Your task to perform on an android device: open app "YouTube Kids" (install if not already installed) and go to login screen Image 0: 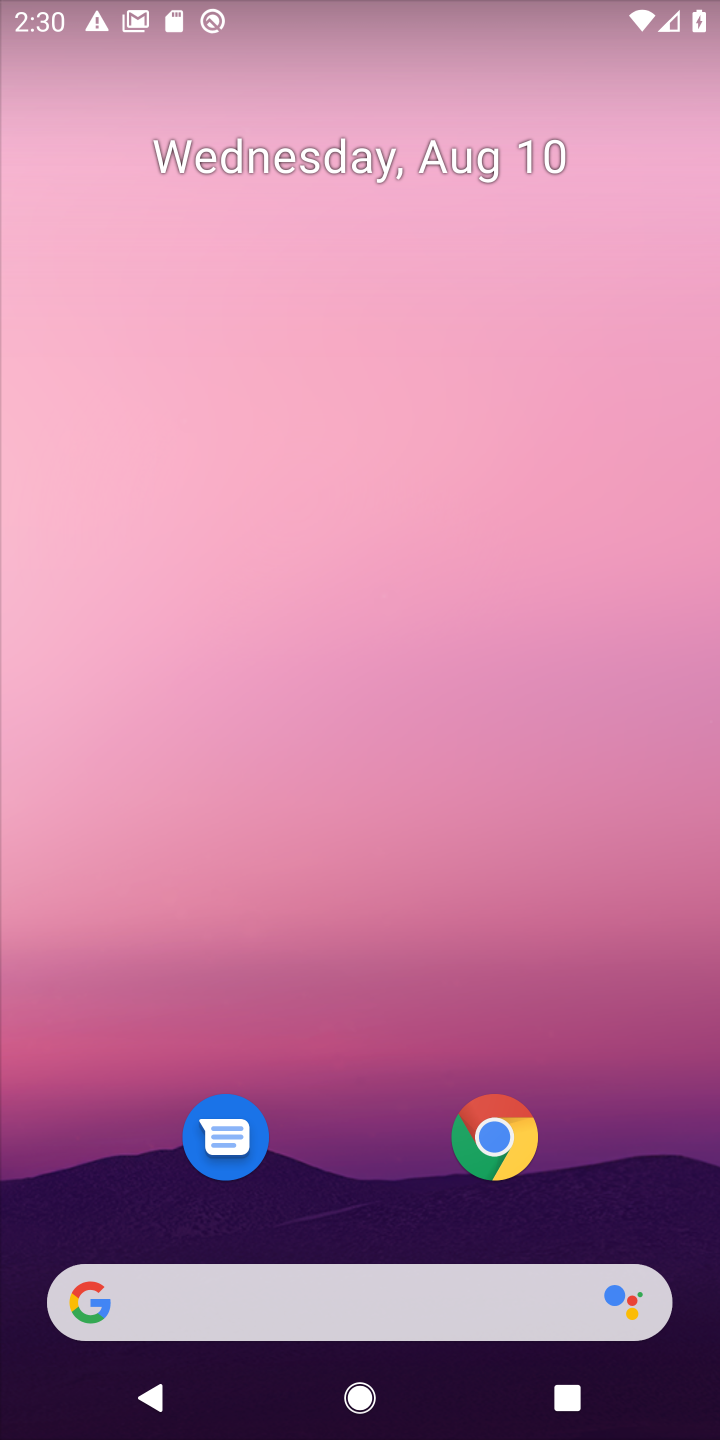
Step 0: drag from (387, 1157) to (473, 191)
Your task to perform on an android device: open app "YouTube Kids" (install if not already installed) and go to login screen Image 1: 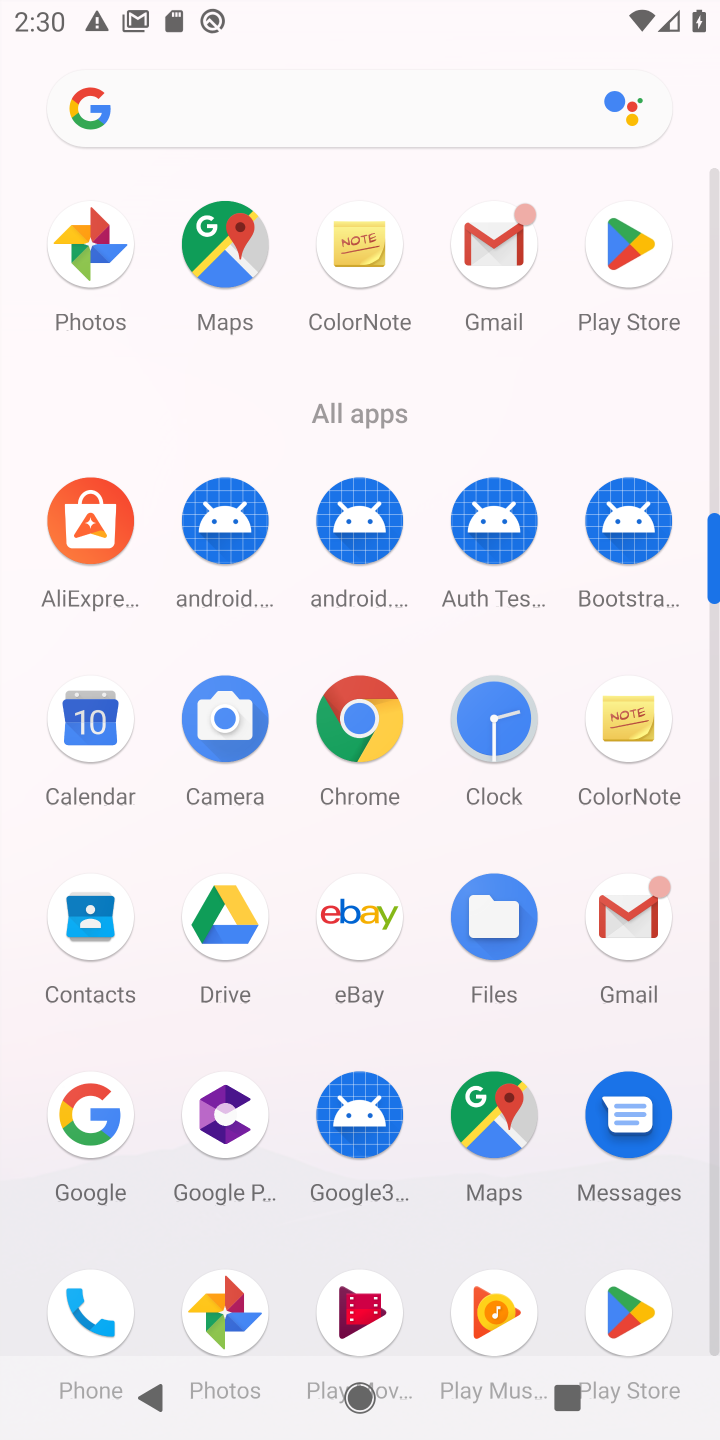
Step 1: click (633, 267)
Your task to perform on an android device: open app "YouTube Kids" (install if not already installed) and go to login screen Image 2: 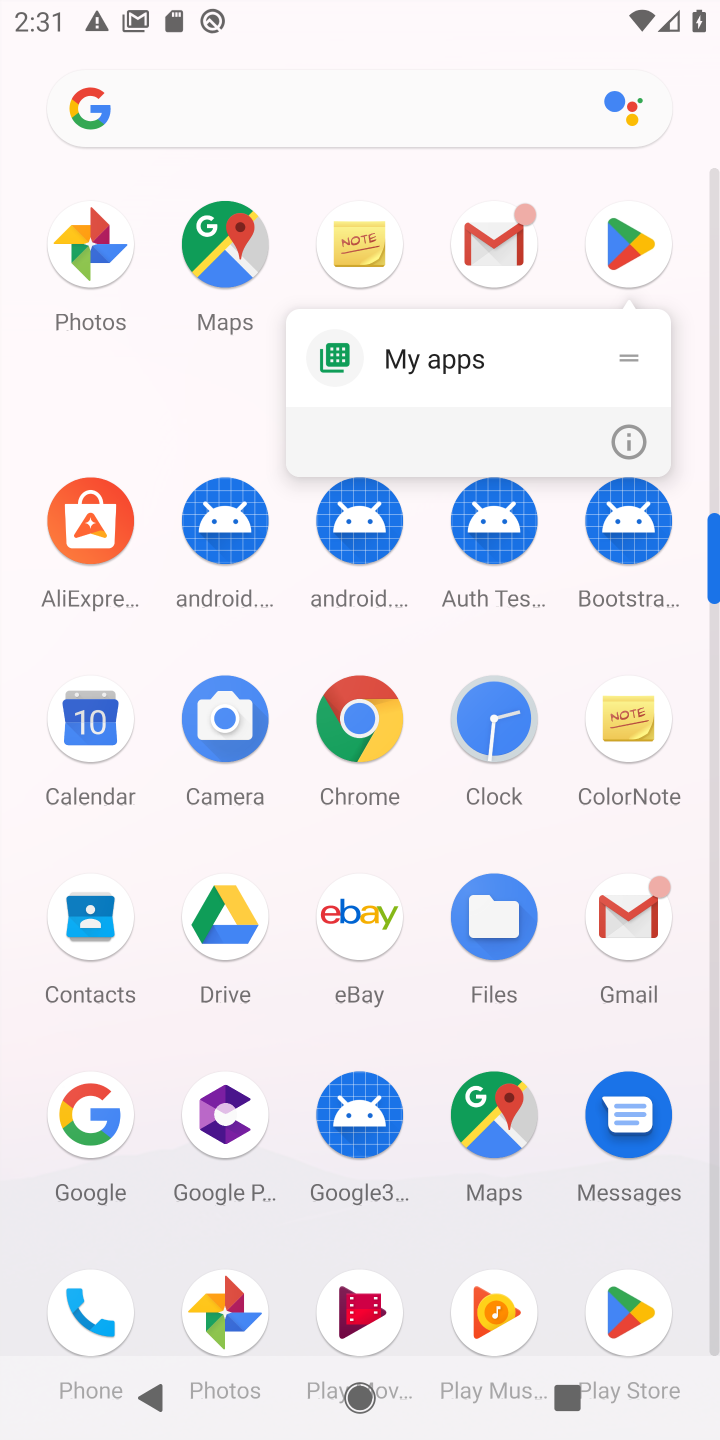
Step 2: click (639, 245)
Your task to perform on an android device: open app "YouTube Kids" (install if not already installed) and go to login screen Image 3: 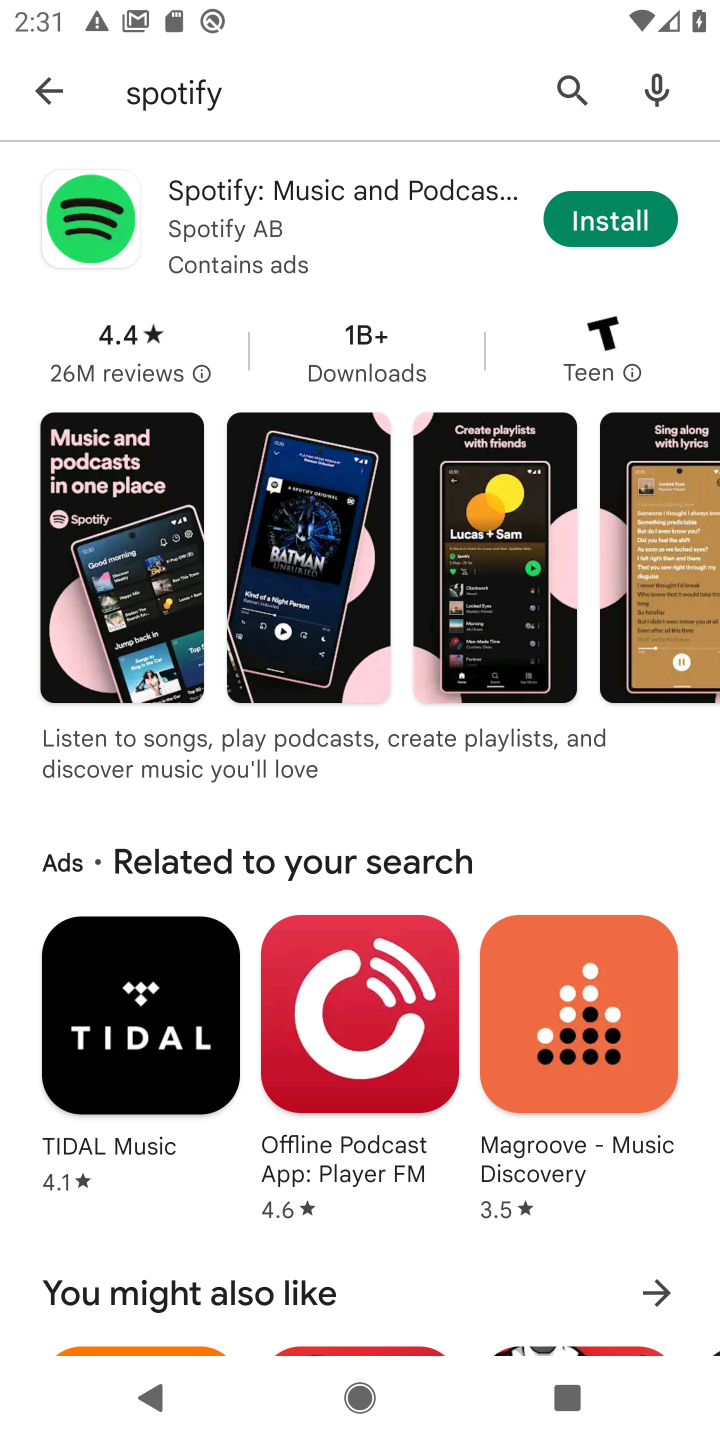
Step 3: click (310, 96)
Your task to perform on an android device: open app "YouTube Kids" (install if not already installed) and go to login screen Image 4: 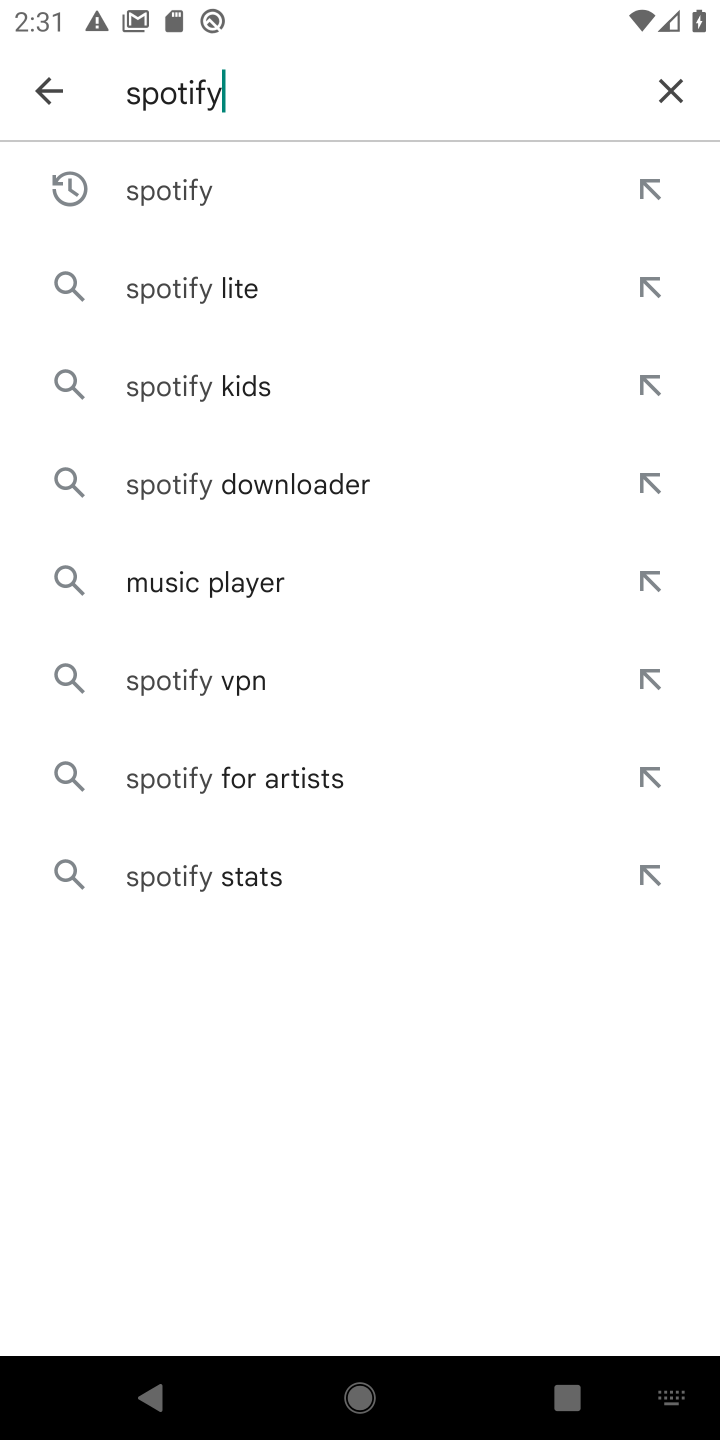
Step 4: click (671, 90)
Your task to perform on an android device: open app "YouTube Kids" (install if not already installed) and go to login screen Image 5: 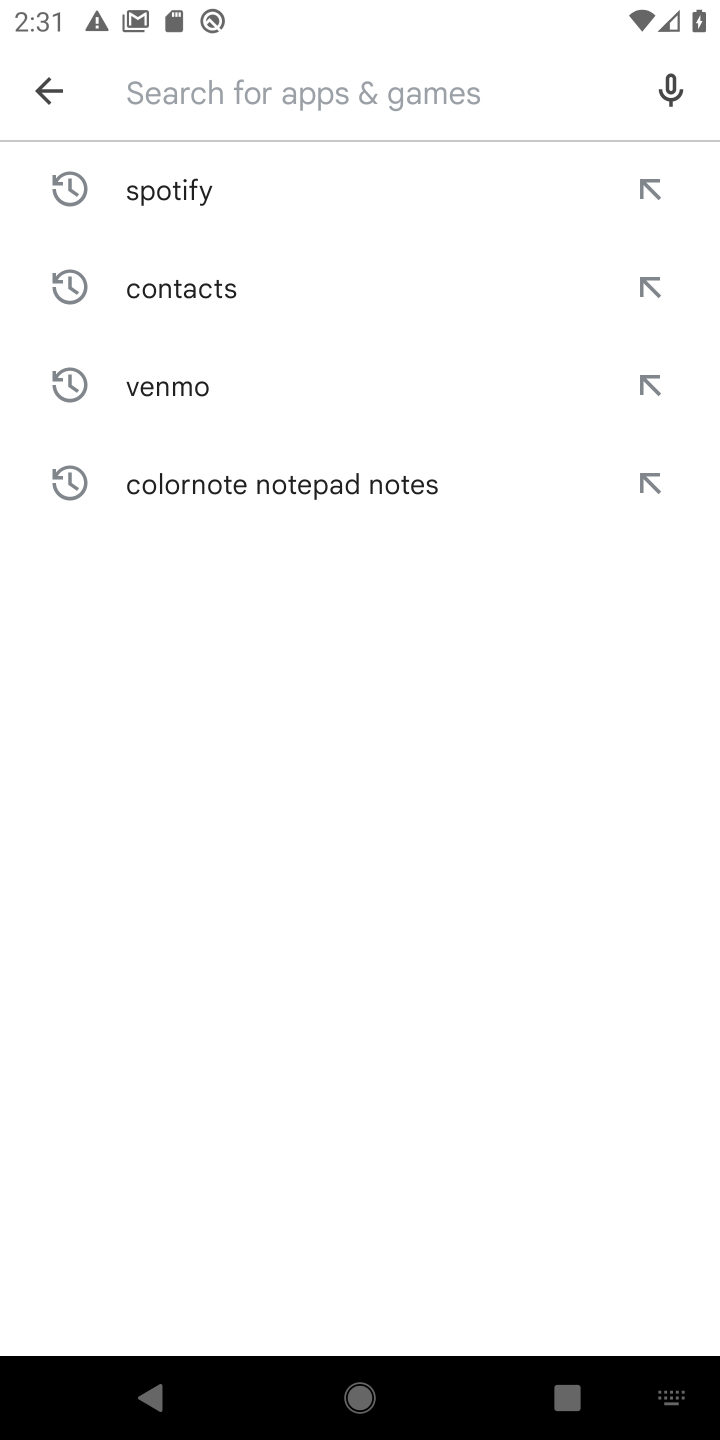
Step 5: type "youtube kids"
Your task to perform on an android device: open app "YouTube Kids" (install if not already installed) and go to login screen Image 6: 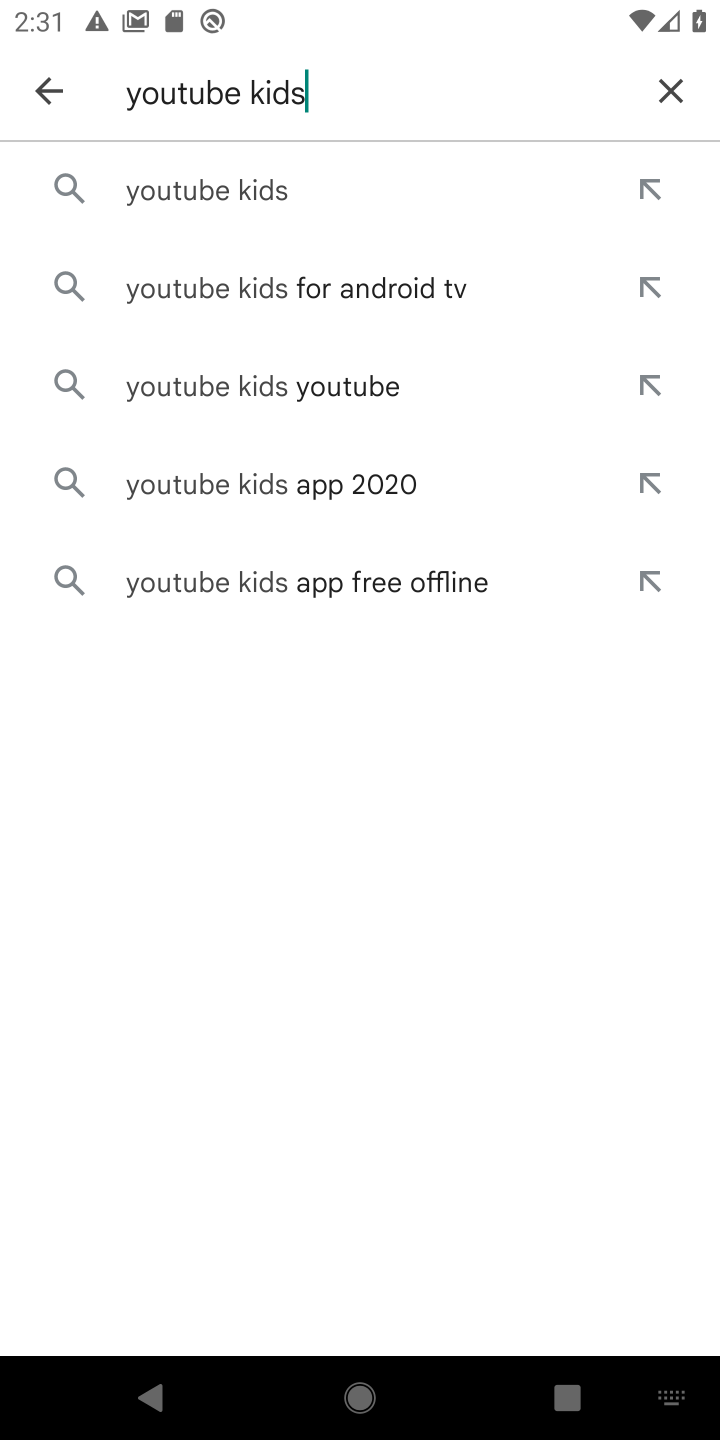
Step 6: click (358, 199)
Your task to perform on an android device: open app "YouTube Kids" (install if not already installed) and go to login screen Image 7: 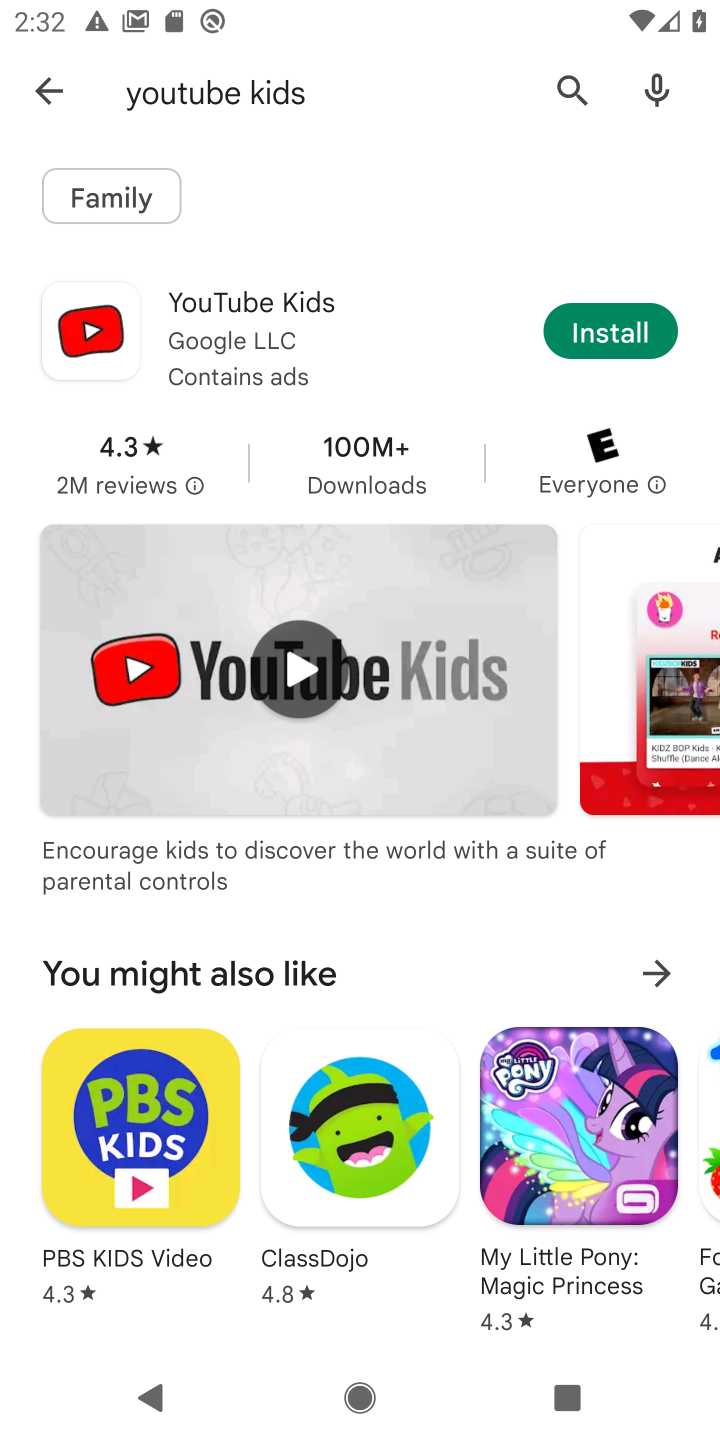
Step 7: click (578, 323)
Your task to perform on an android device: open app "YouTube Kids" (install if not already installed) and go to login screen Image 8: 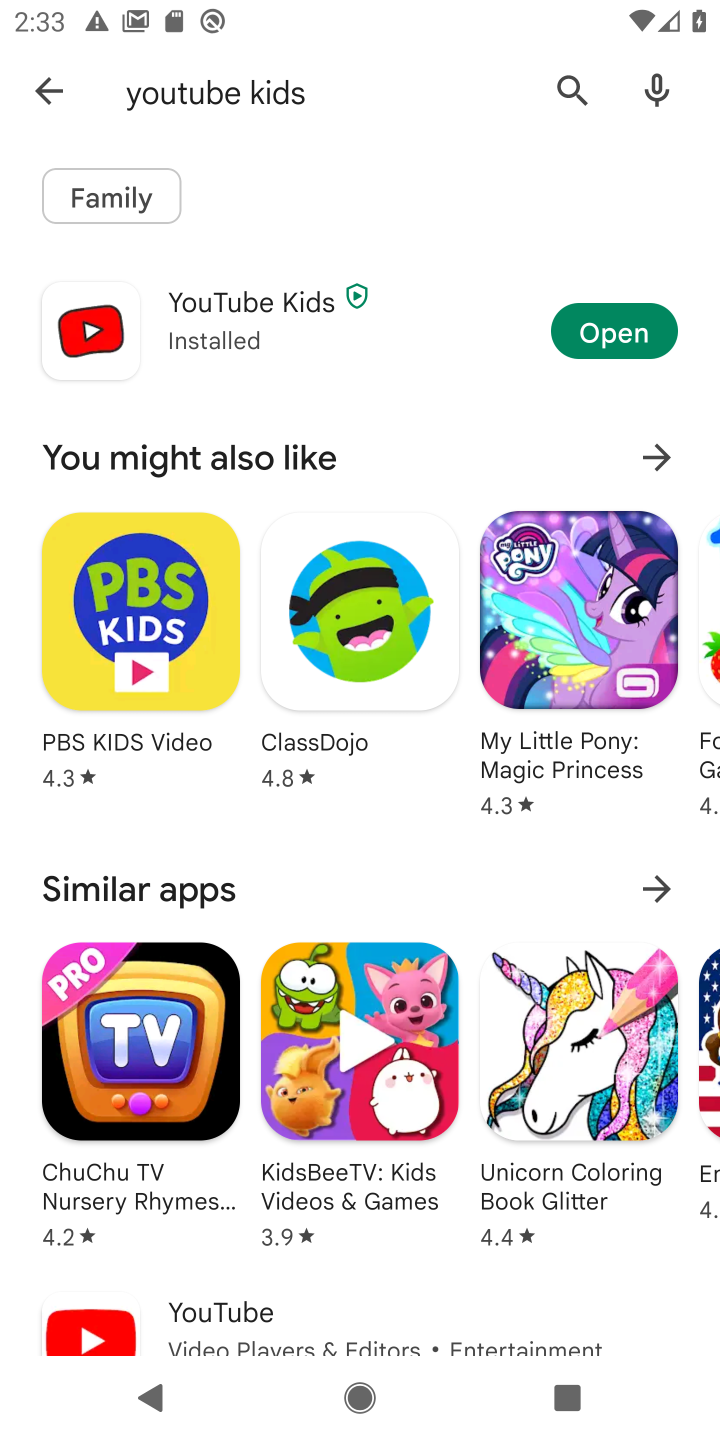
Step 8: click (618, 303)
Your task to perform on an android device: open app "YouTube Kids" (install if not already installed) and go to login screen Image 9: 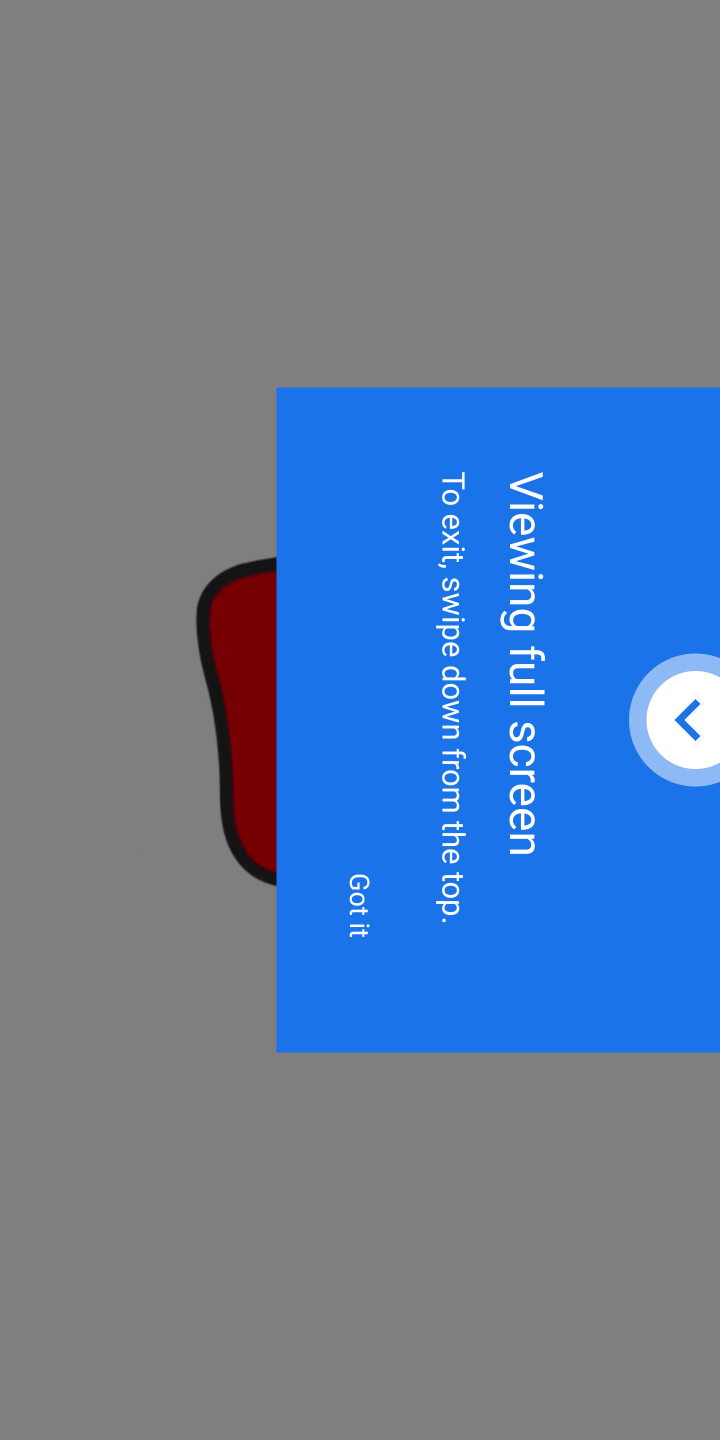
Step 9: click (361, 923)
Your task to perform on an android device: open app "YouTube Kids" (install if not already installed) and go to login screen Image 10: 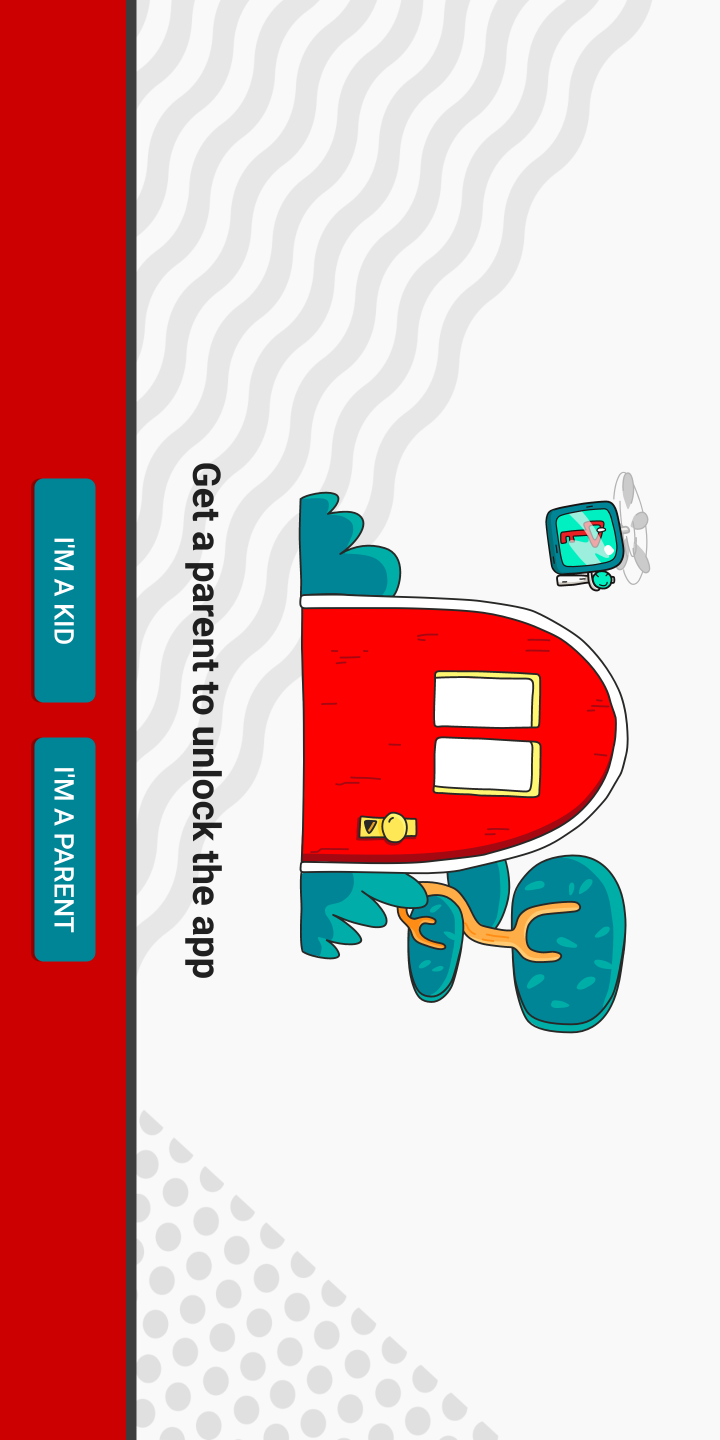
Step 10: click (48, 789)
Your task to perform on an android device: open app "YouTube Kids" (install if not already installed) and go to login screen Image 11: 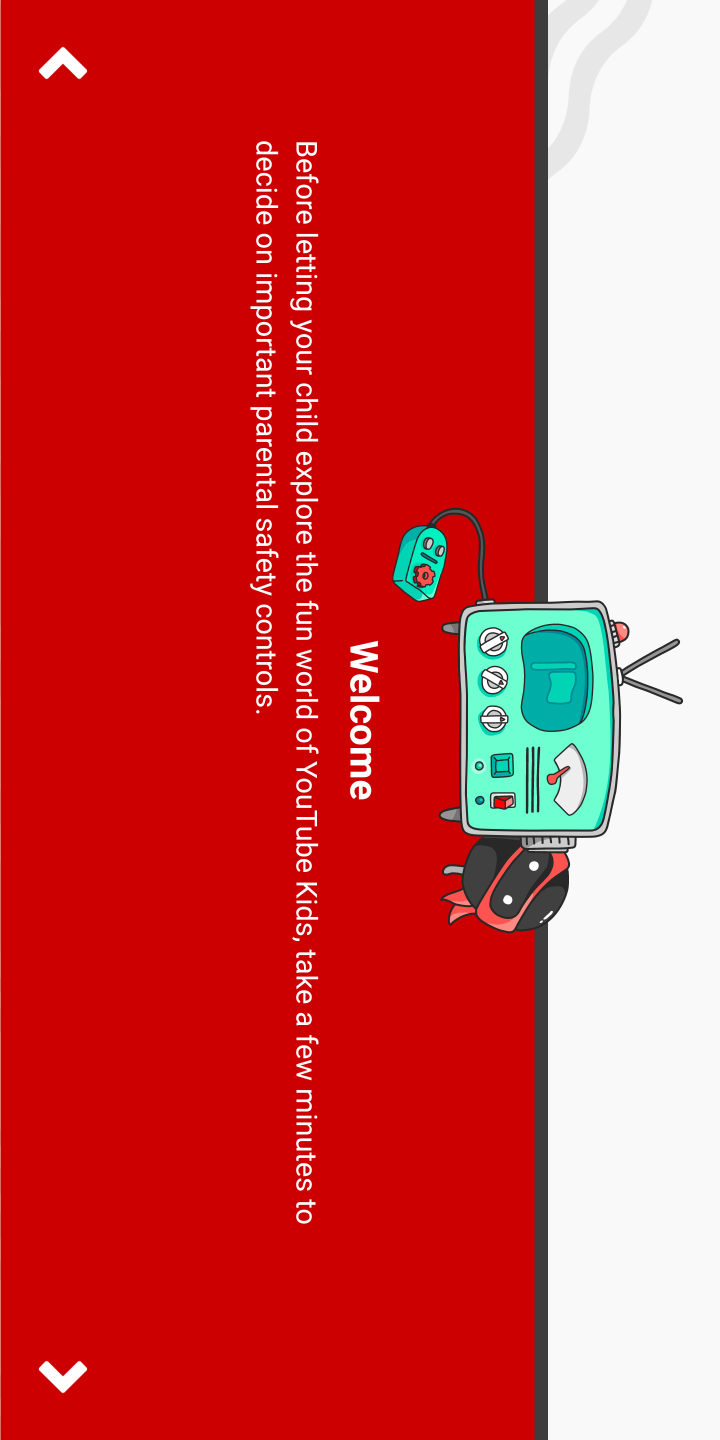
Step 11: click (69, 1372)
Your task to perform on an android device: open app "YouTube Kids" (install if not already installed) and go to login screen Image 12: 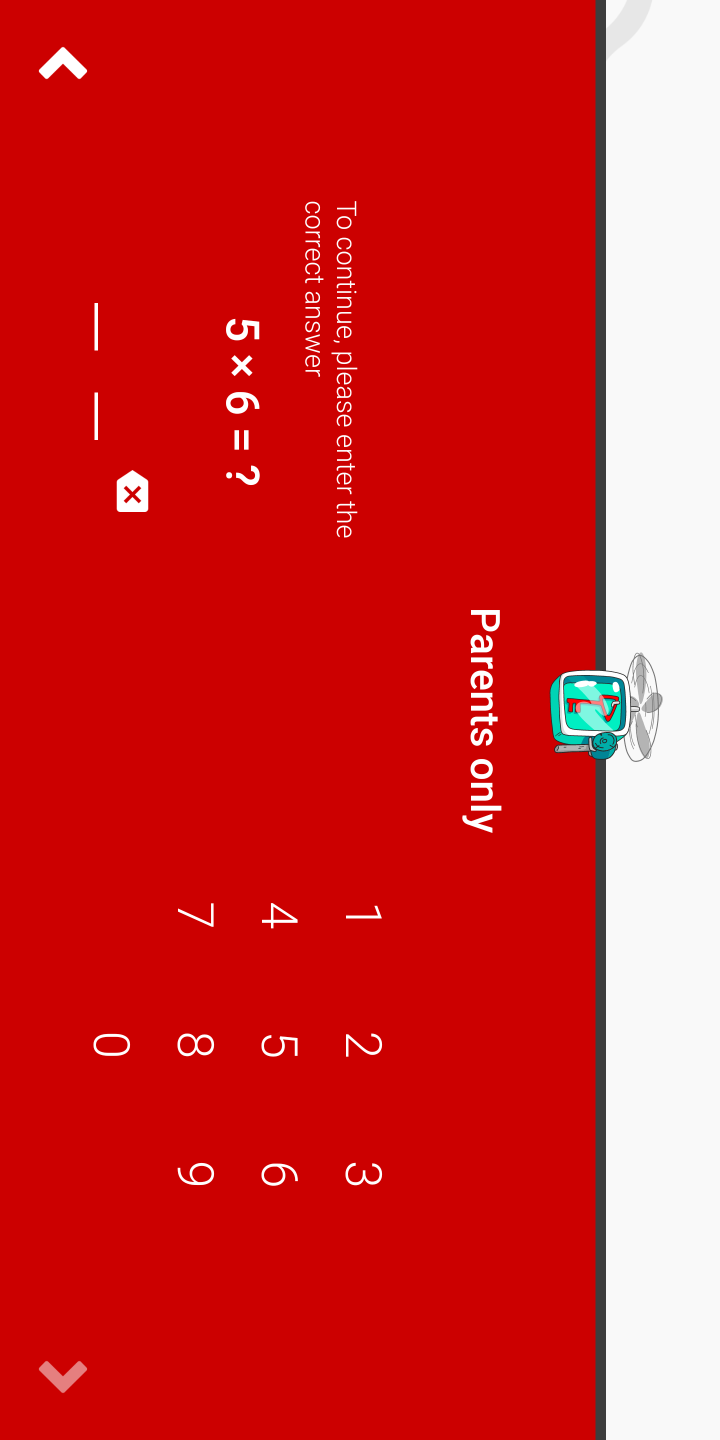
Step 12: click (370, 1167)
Your task to perform on an android device: open app "YouTube Kids" (install if not already installed) and go to login screen Image 13: 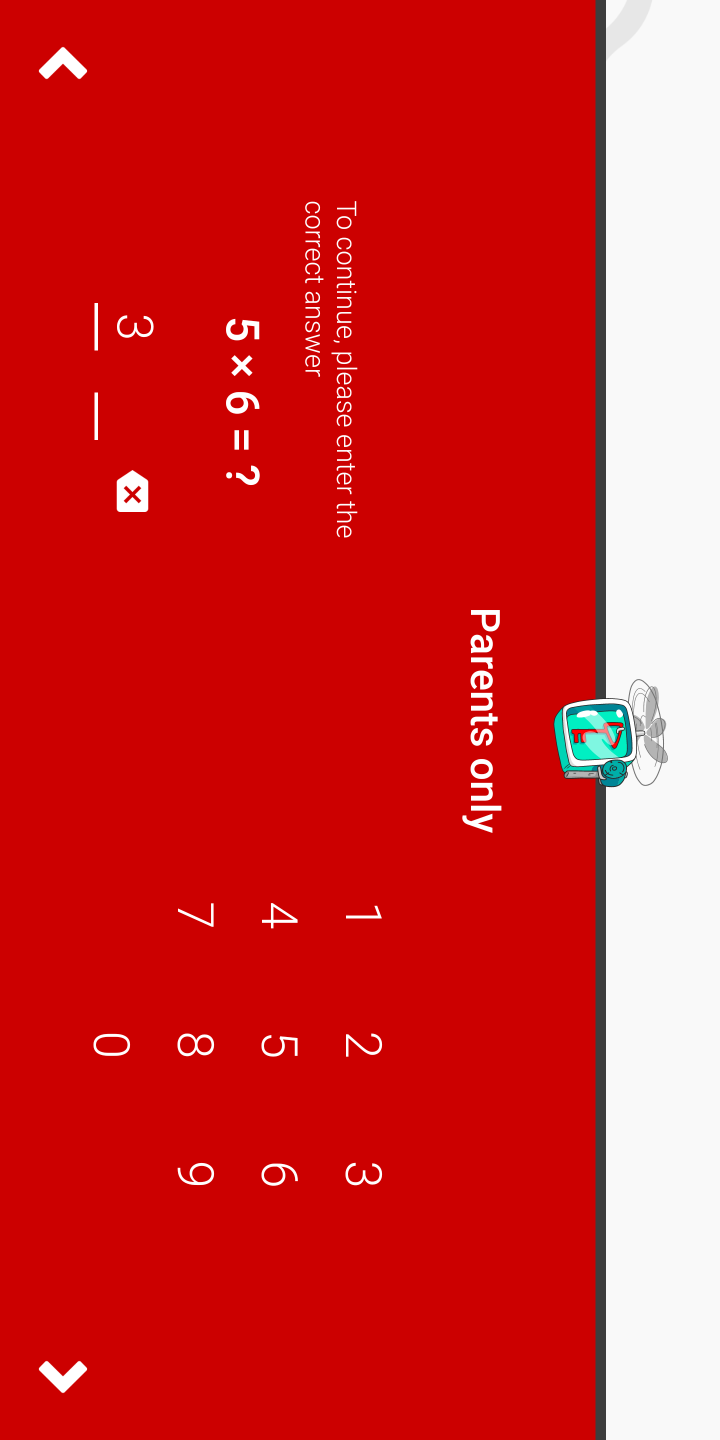
Step 13: click (93, 1048)
Your task to perform on an android device: open app "YouTube Kids" (install if not already installed) and go to login screen Image 14: 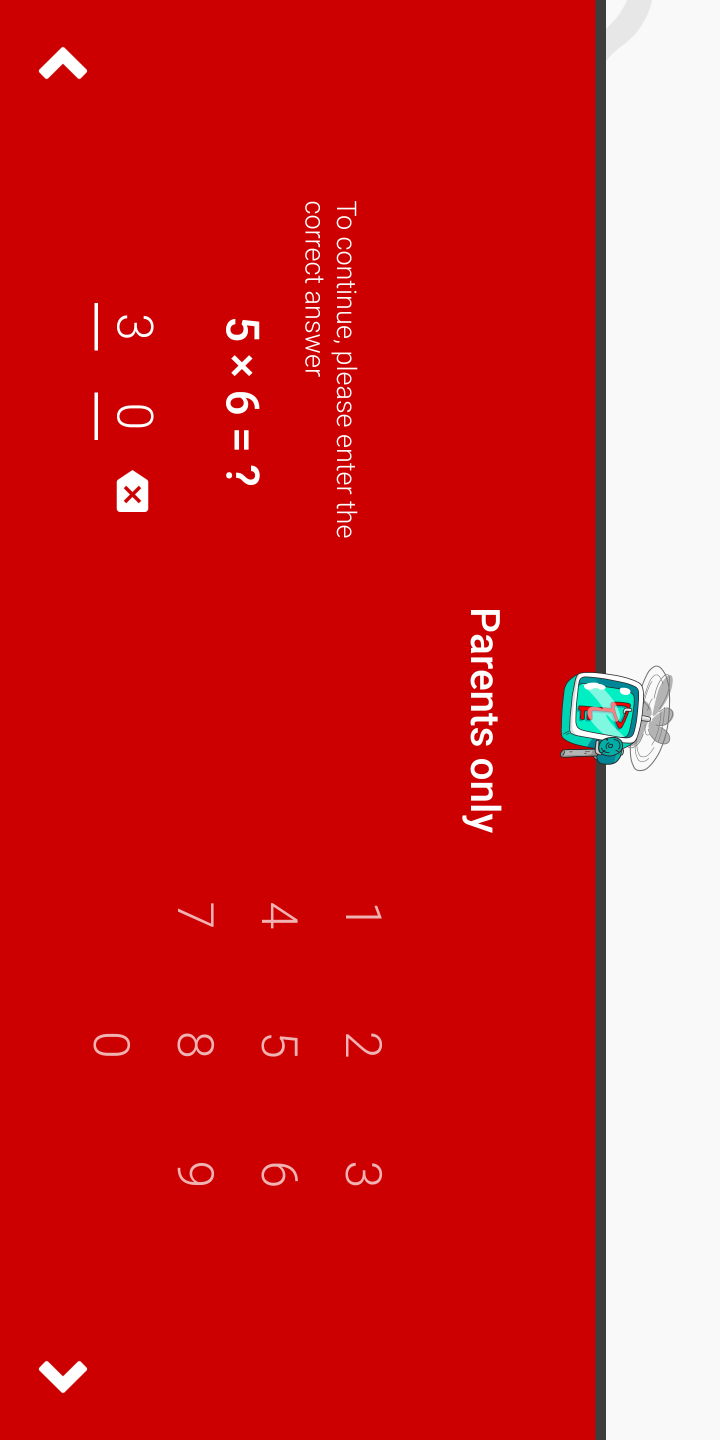
Step 14: click (58, 1388)
Your task to perform on an android device: open app "YouTube Kids" (install if not already installed) and go to login screen Image 15: 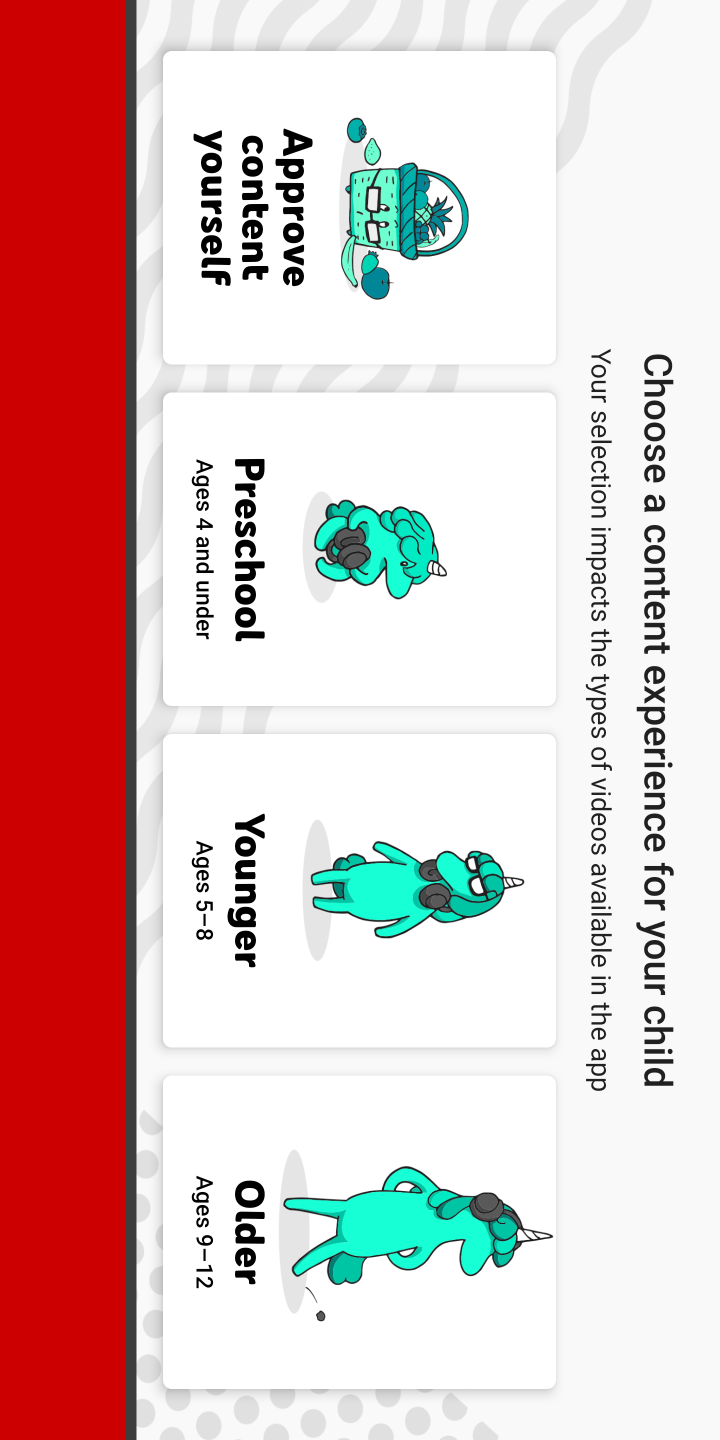
Step 15: click (297, 232)
Your task to perform on an android device: open app "YouTube Kids" (install if not already installed) and go to login screen Image 16: 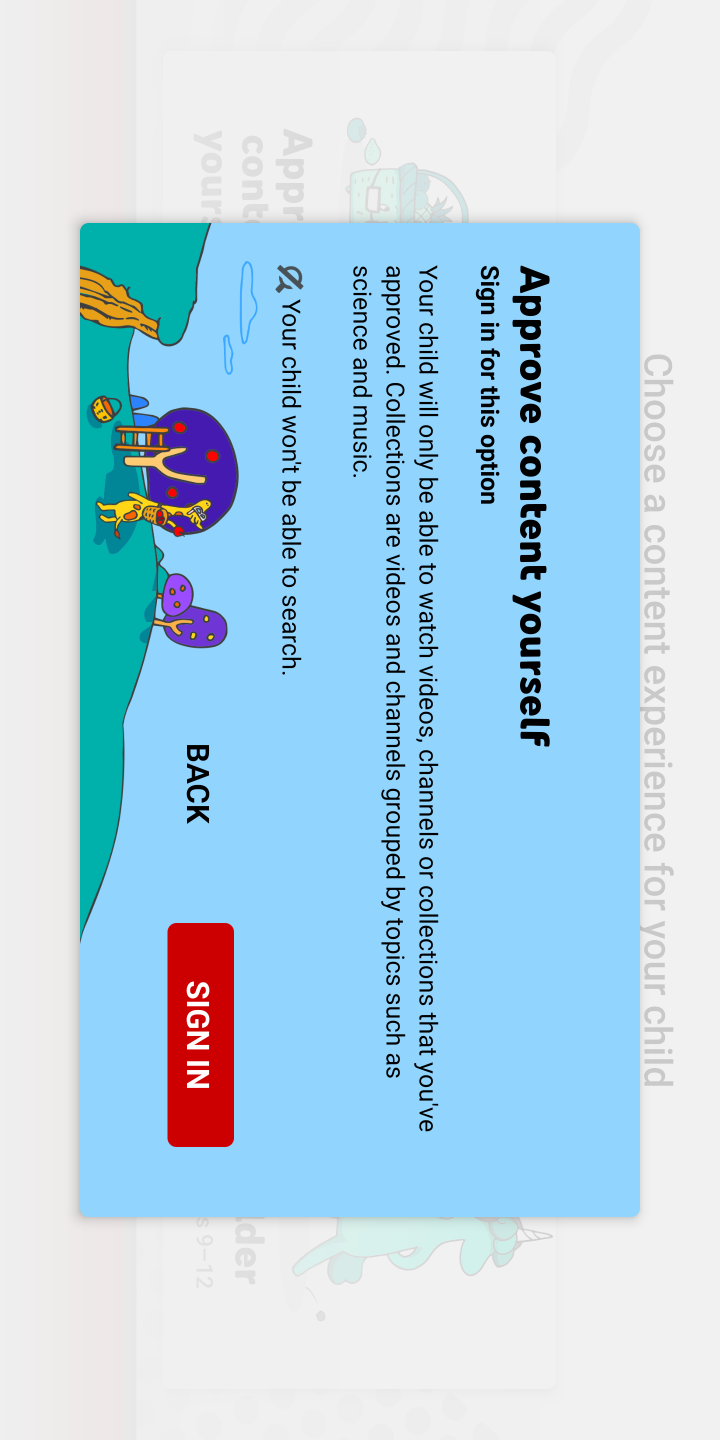
Step 16: click (197, 1034)
Your task to perform on an android device: open app "YouTube Kids" (install if not already installed) and go to login screen Image 17: 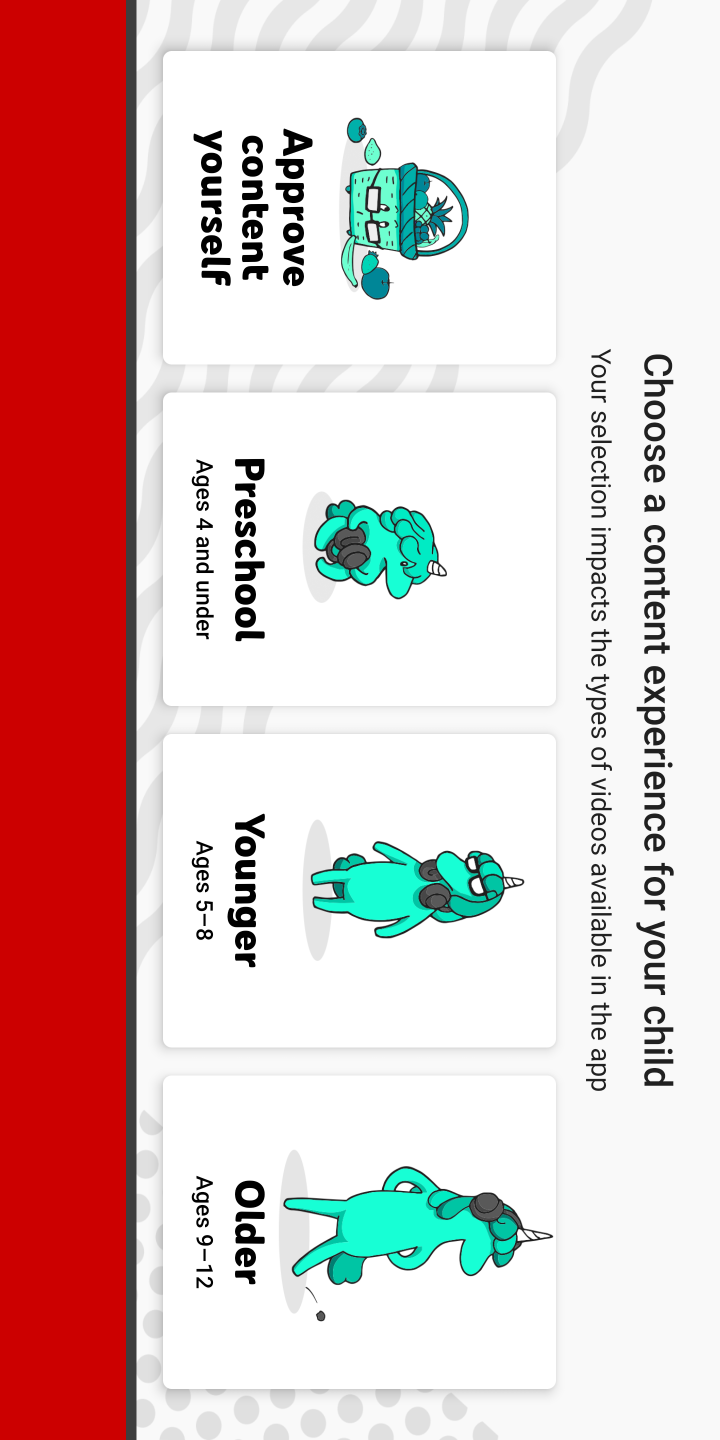
Step 17: task complete